Your task to perform on an android device: Open privacy settings Image 0: 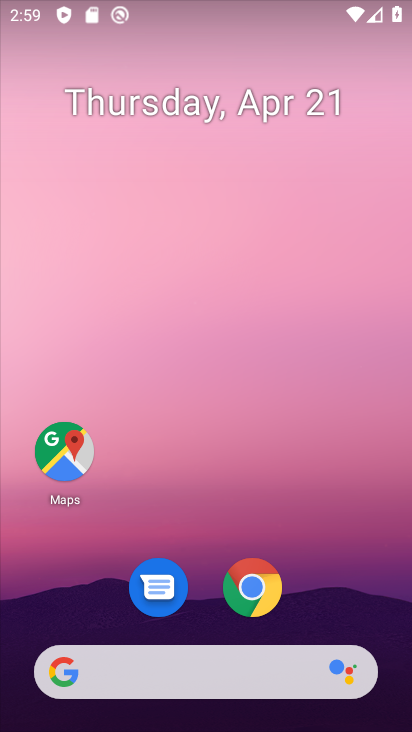
Step 0: click (245, 585)
Your task to perform on an android device: Open privacy settings Image 1: 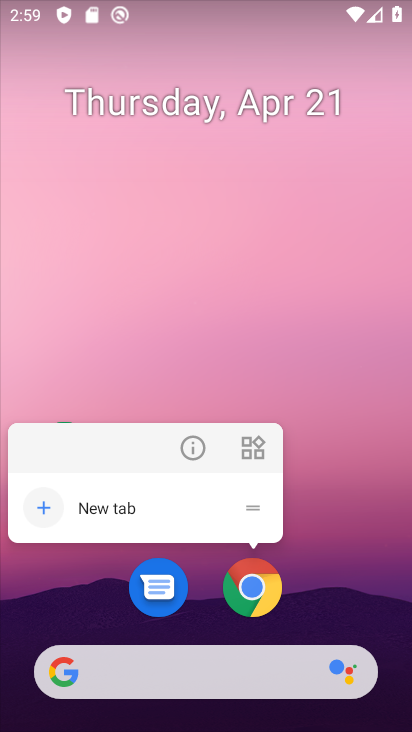
Step 1: click (246, 583)
Your task to perform on an android device: Open privacy settings Image 2: 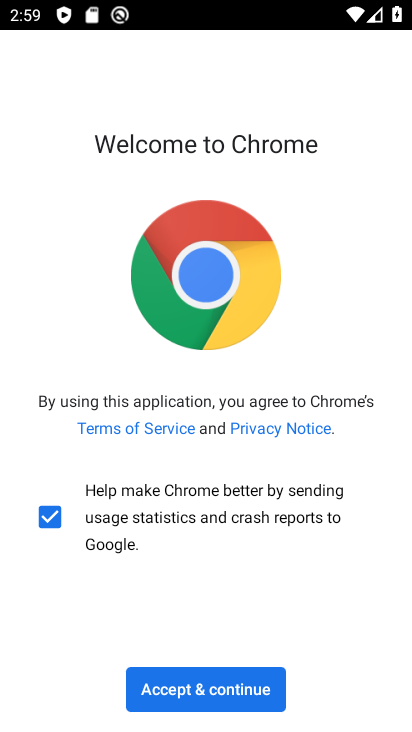
Step 2: click (195, 689)
Your task to perform on an android device: Open privacy settings Image 3: 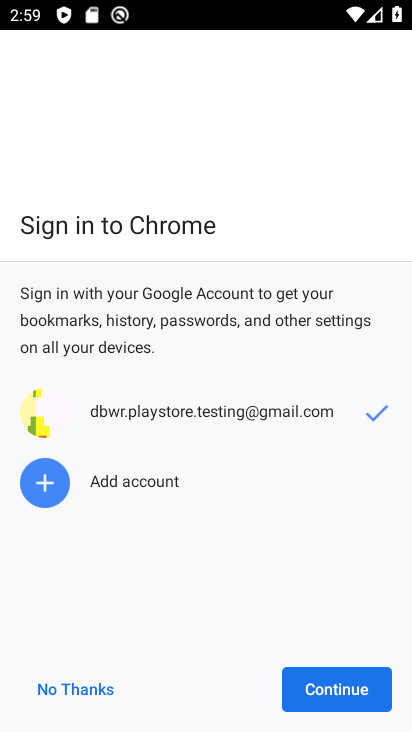
Step 3: click (305, 678)
Your task to perform on an android device: Open privacy settings Image 4: 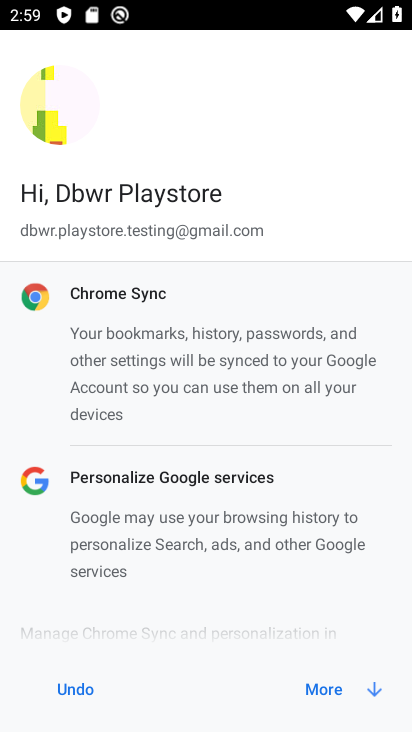
Step 4: click (323, 697)
Your task to perform on an android device: Open privacy settings Image 5: 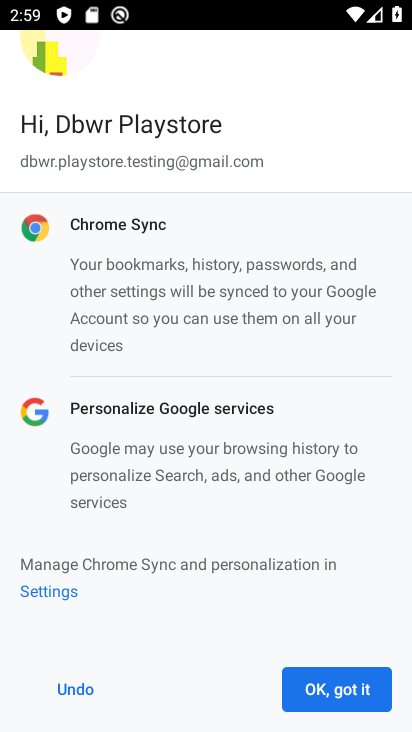
Step 5: click (327, 696)
Your task to perform on an android device: Open privacy settings Image 6: 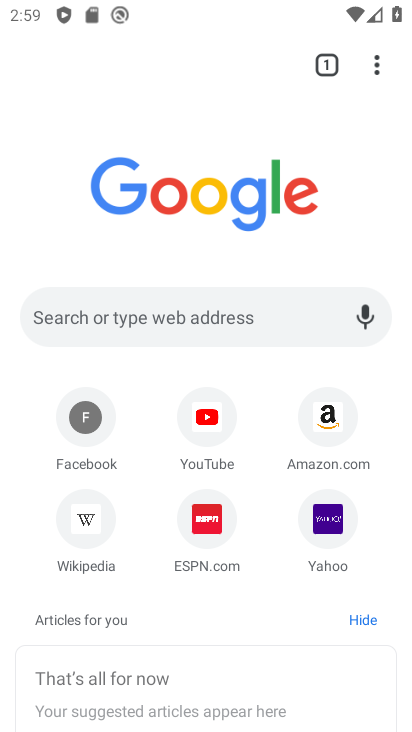
Step 6: drag from (375, 63) to (157, 552)
Your task to perform on an android device: Open privacy settings Image 7: 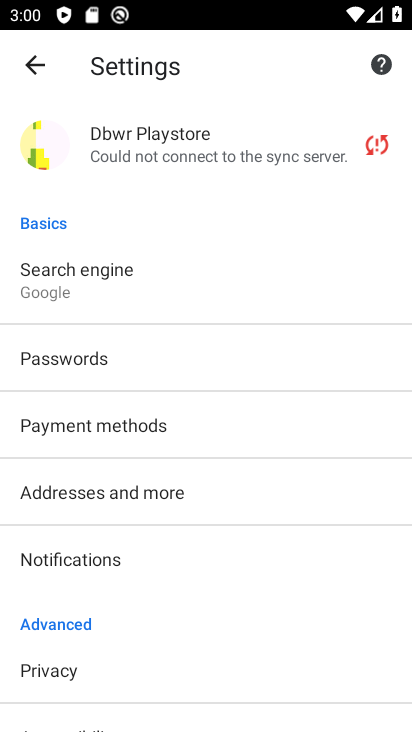
Step 7: click (51, 674)
Your task to perform on an android device: Open privacy settings Image 8: 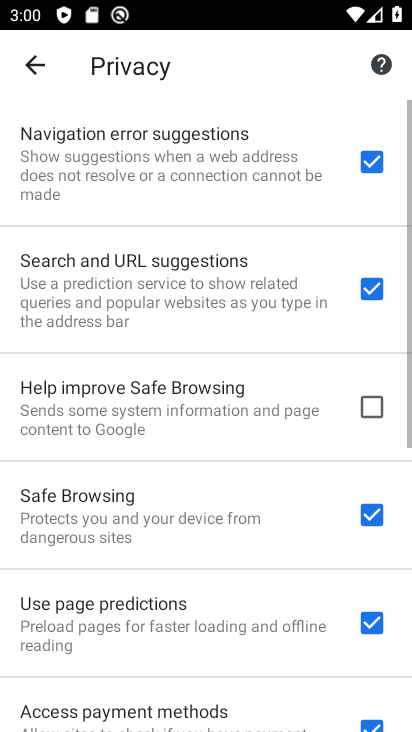
Step 8: task complete